Your task to perform on an android device: Go to display settings Image 0: 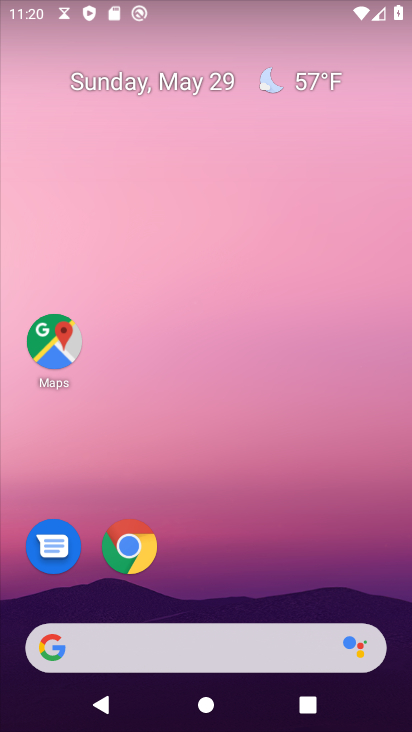
Step 0: press home button
Your task to perform on an android device: Go to display settings Image 1: 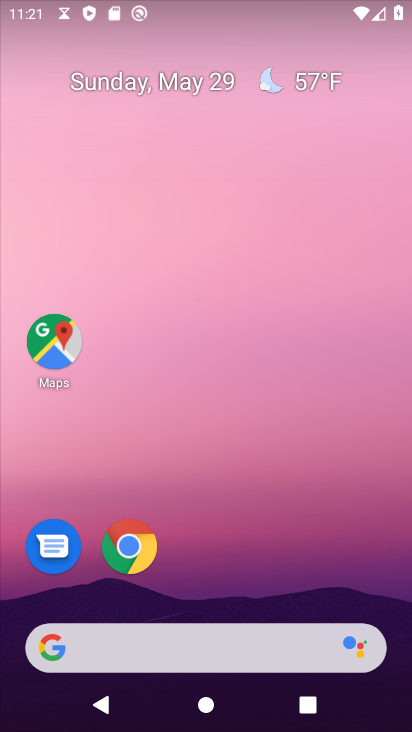
Step 1: click (340, 172)
Your task to perform on an android device: Go to display settings Image 2: 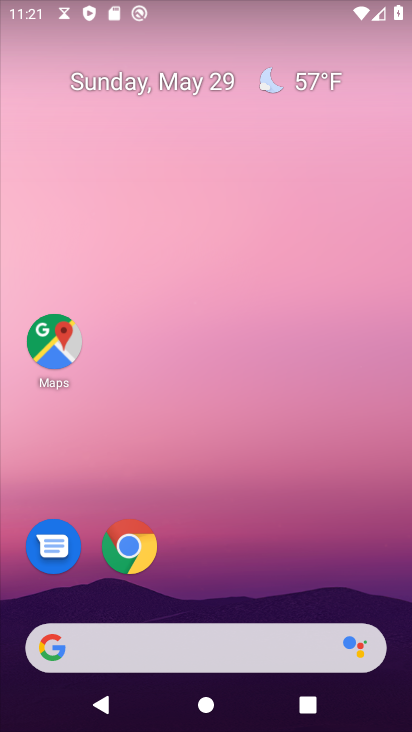
Step 2: drag from (184, 650) to (342, 114)
Your task to perform on an android device: Go to display settings Image 3: 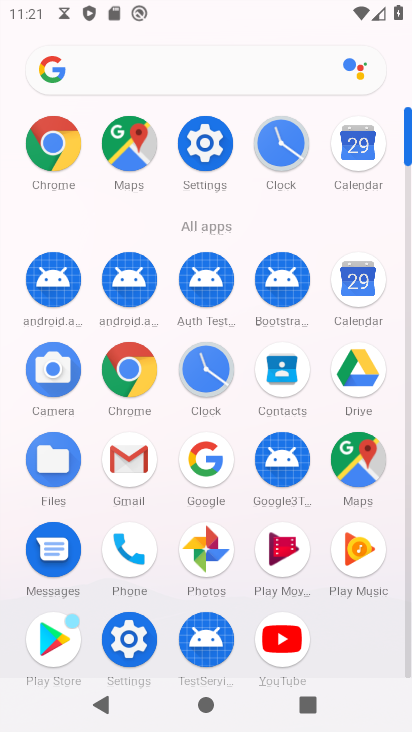
Step 3: click (212, 142)
Your task to perform on an android device: Go to display settings Image 4: 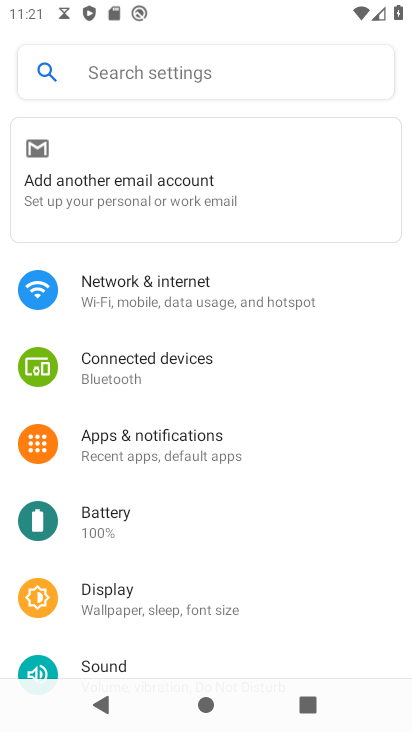
Step 4: click (136, 595)
Your task to perform on an android device: Go to display settings Image 5: 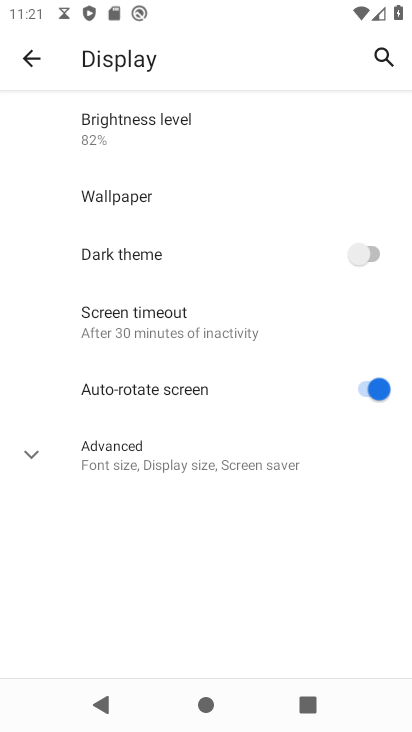
Step 5: task complete